Your task to perform on an android device: turn on location history Image 0: 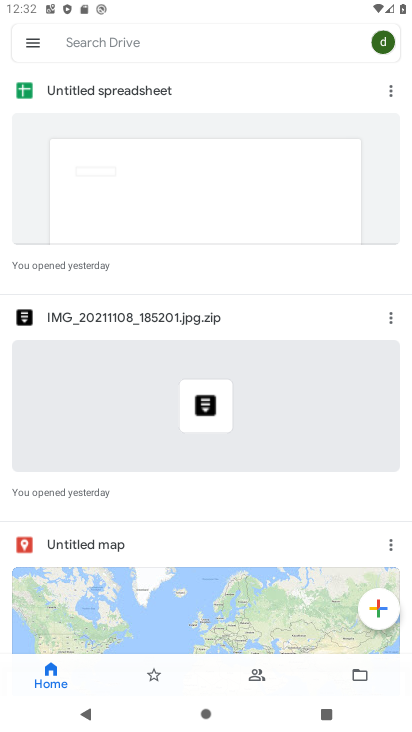
Step 0: press home button
Your task to perform on an android device: turn on location history Image 1: 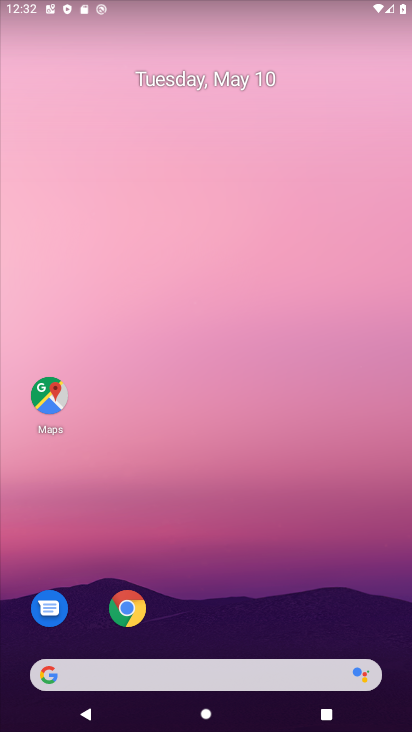
Step 1: drag from (208, 610) to (222, 66)
Your task to perform on an android device: turn on location history Image 2: 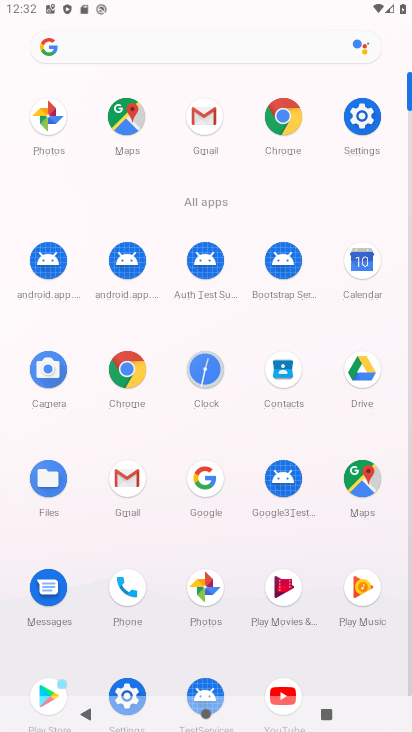
Step 2: click (359, 117)
Your task to perform on an android device: turn on location history Image 3: 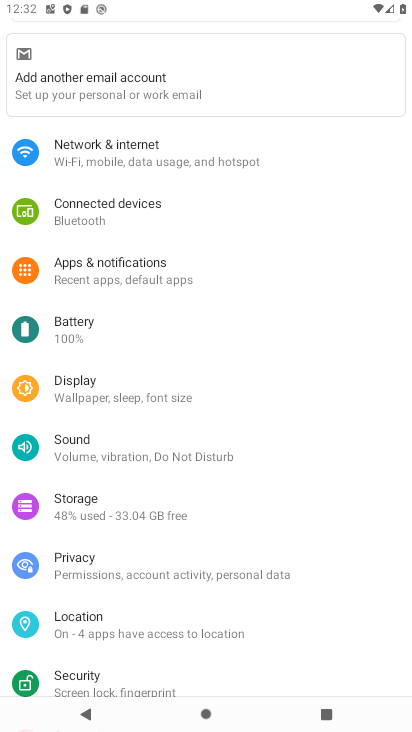
Step 3: drag from (183, 557) to (198, 266)
Your task to perform on an android device: turn on location history Image 4: 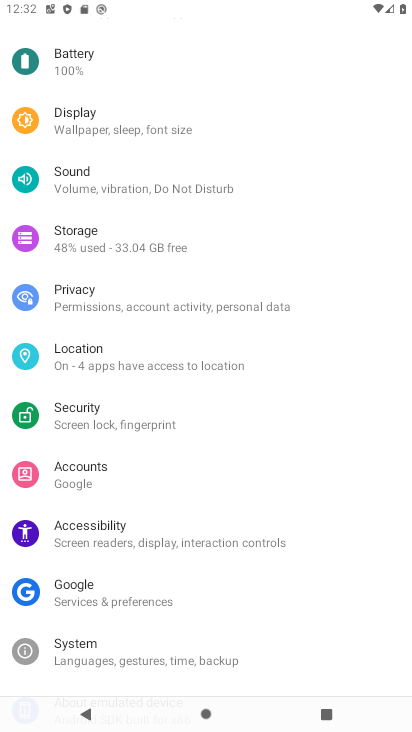
Step 4: click (112, 361)
Your task to perform on an android device: turn on location history Image 5: 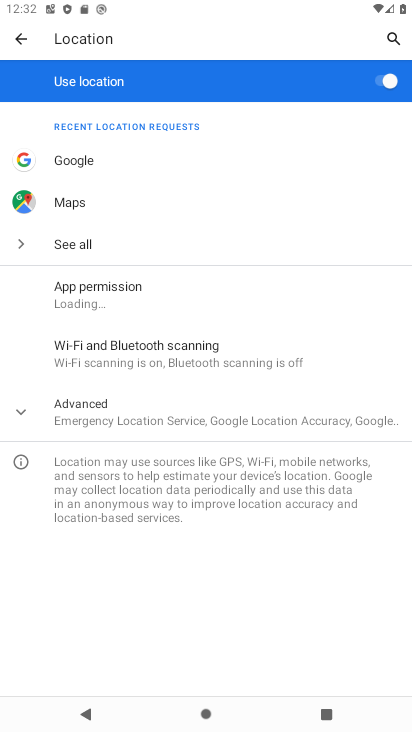
Step 5: click (83, 419)
Your task to perform on an android device: turn on location history Image 6: 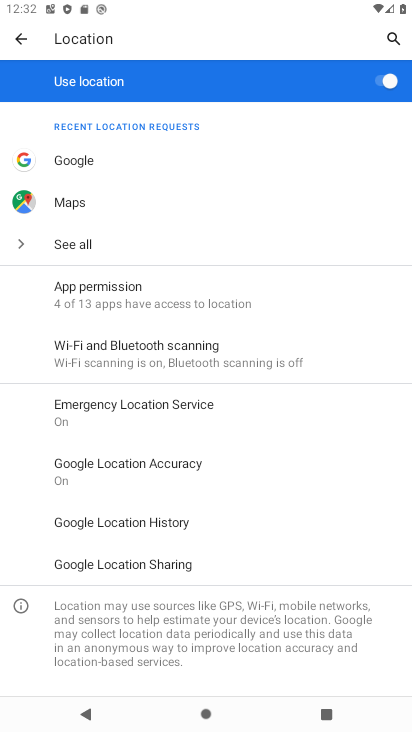
Step 6: click (159, 525)
Your task to perform on an android device: turn on location history Image 7: 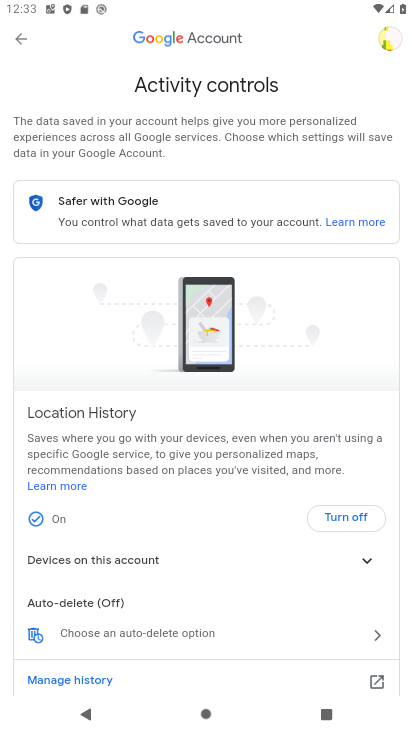
Step 7: task complete